Your task to perform on an android device: Add macbook pro to the cart on walmart Image 0: 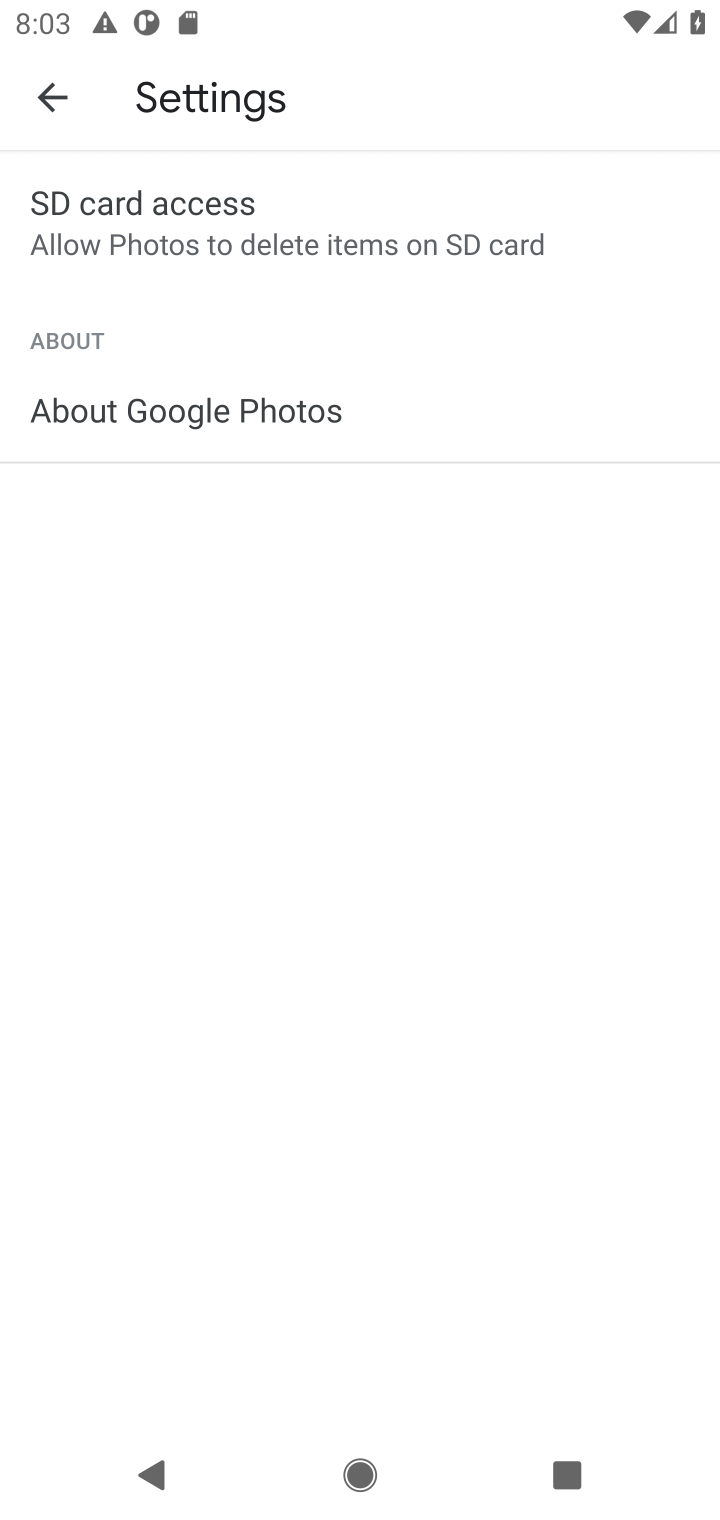
Step 0: press home button
Your task to perform on an android device: Add macbook pro to the cart on walmart Image 1: 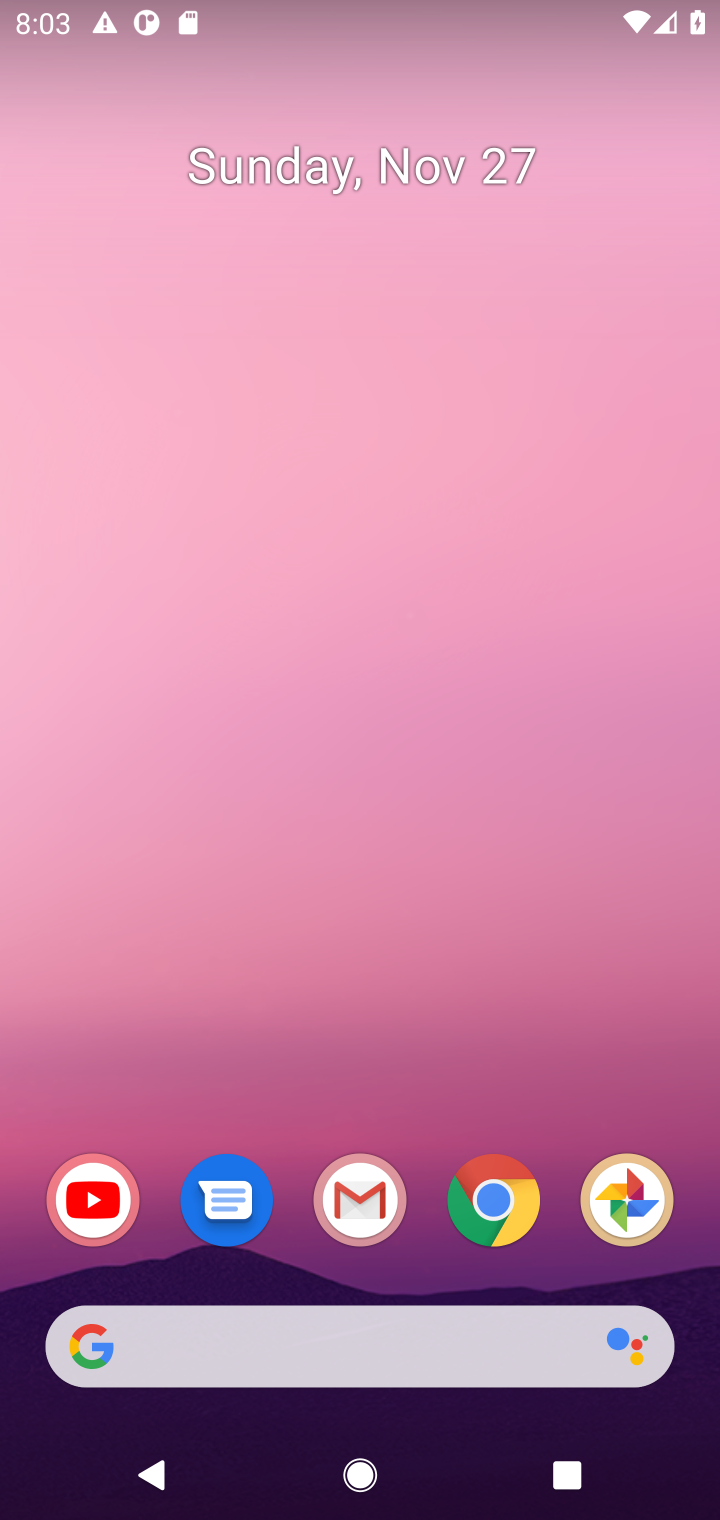
Step 1: click (507, 1228)
Your task to perform on an android device: Add macbook pro to the cart on walmart Image 2: 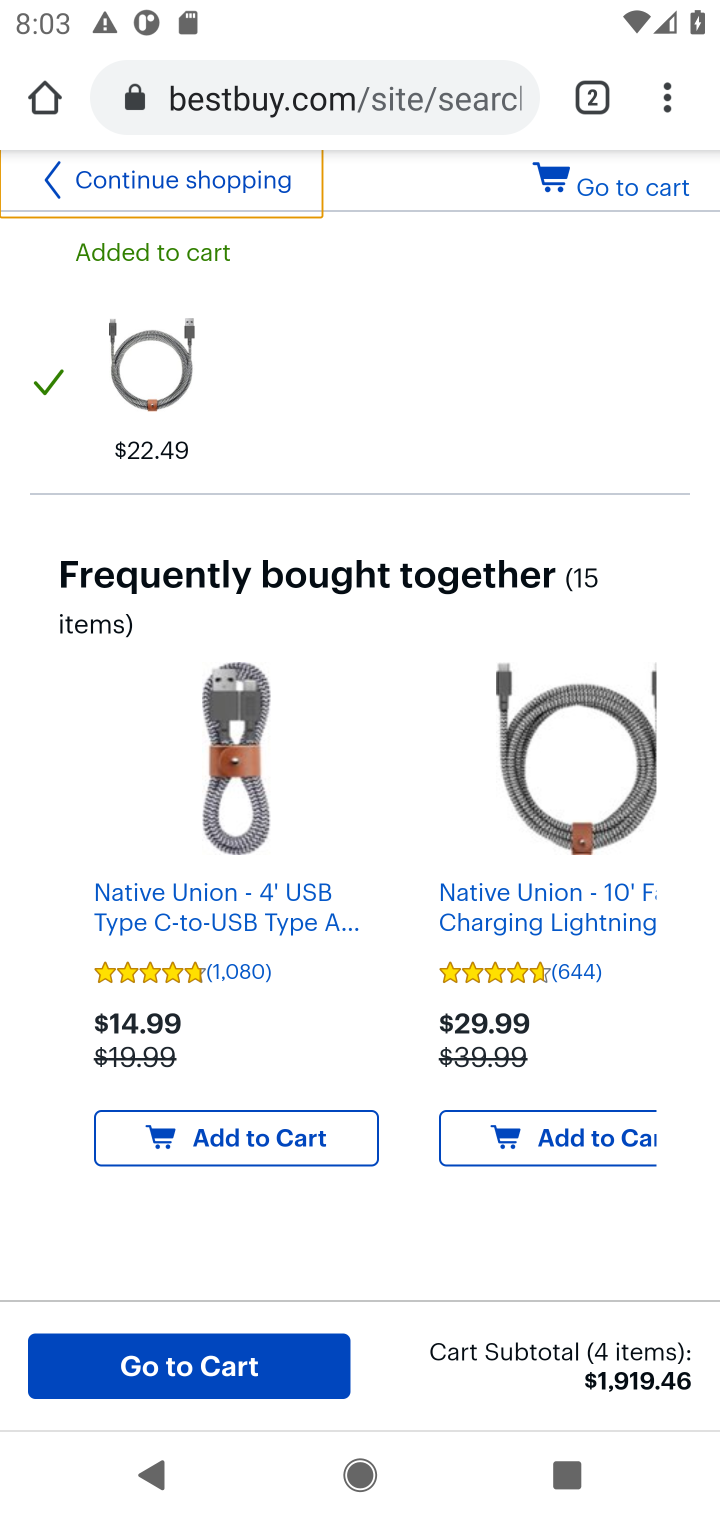
Step 2: click (324, 112)
Your task to perform on an android device: Add macbook pro to the cart on walmart Image 3: 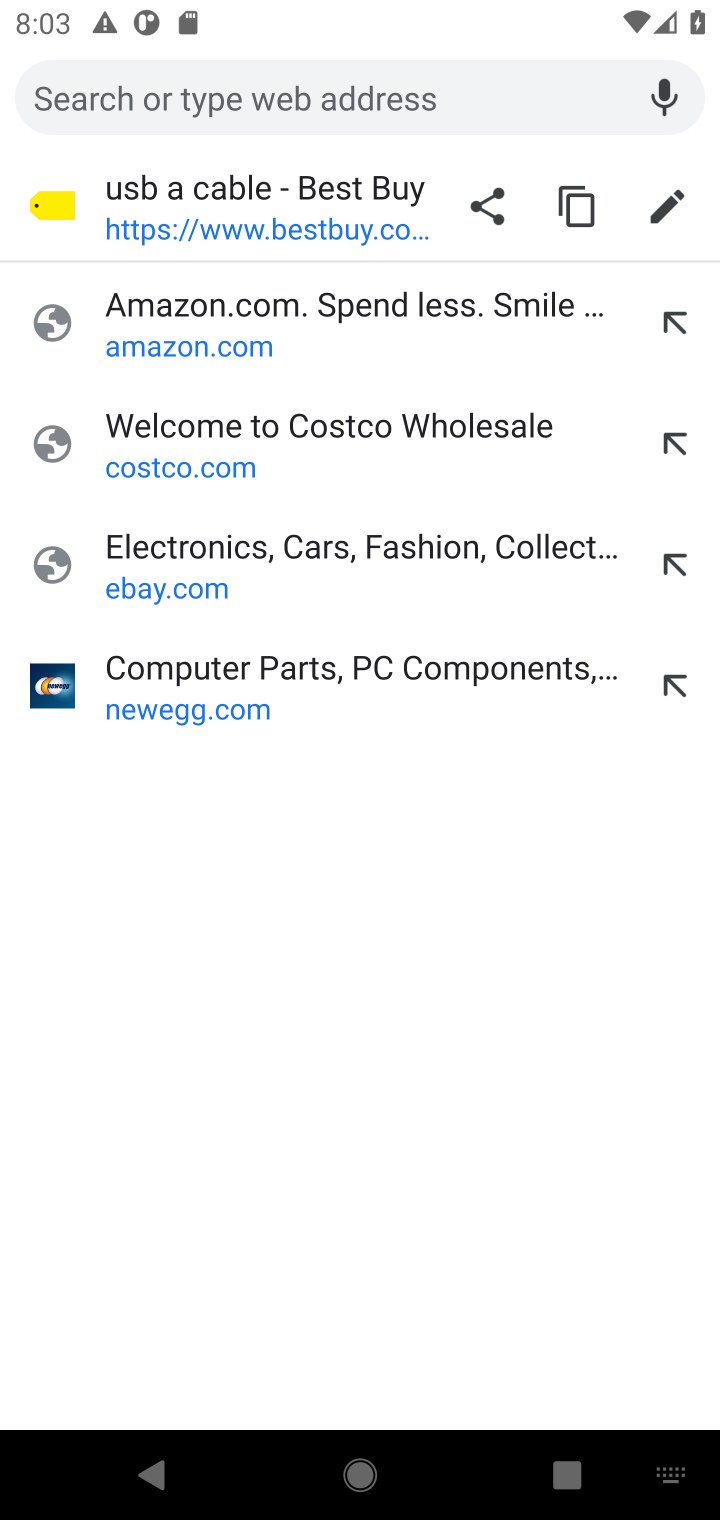
Step 3: type "walmart.com"
Your task to perform on an android device: Add macbook pro to the cart on walmart Image 4: 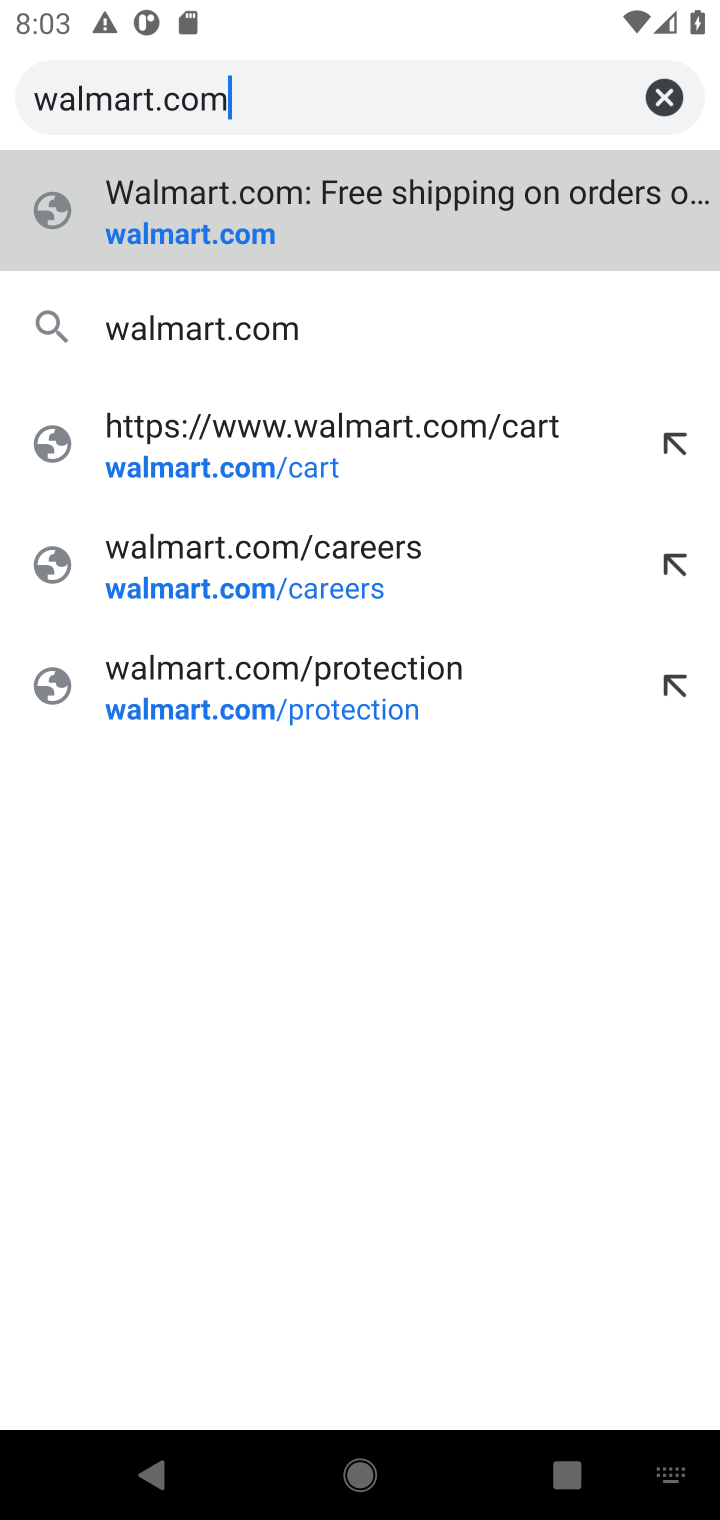
Step 4: click (162, 247)
Your task to perform on an android device: Add macbook pro to the cart on walmart Image 5: 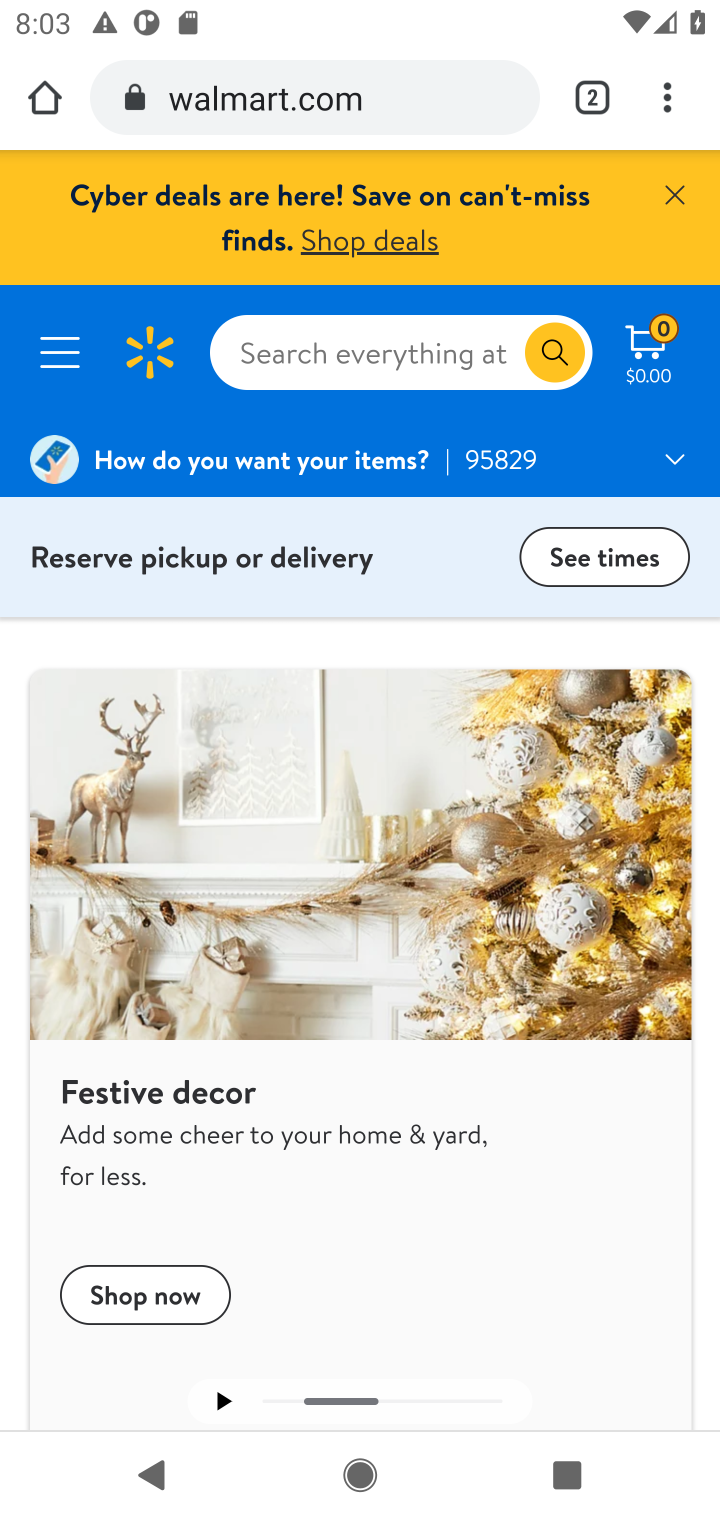
Step 5: click (259, 355)
Your task to perform on an android device: Add macbook pro to the cart on walmart Image 6: 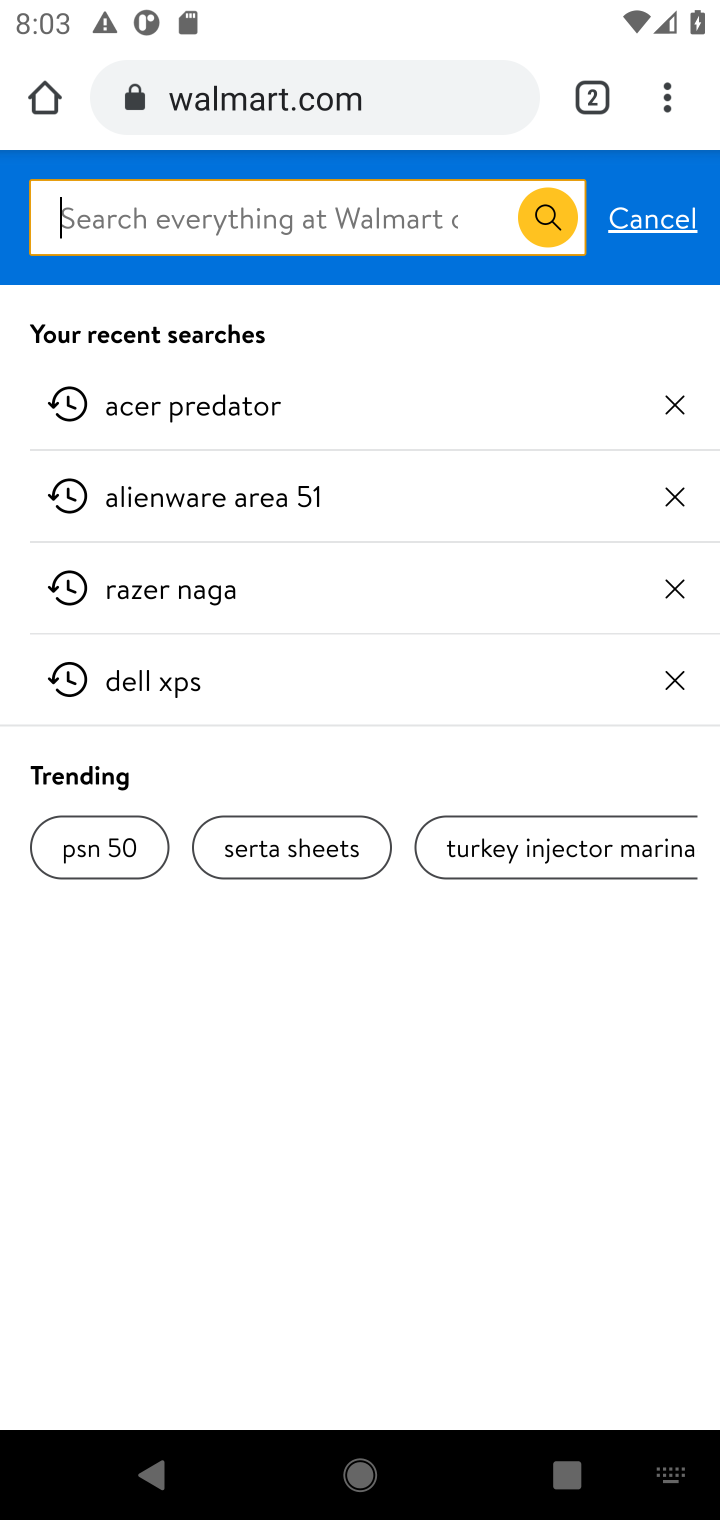
Step 6: type ""
Your task to perform on an android device: Add macbook pro to the cart on walmart Image 7: 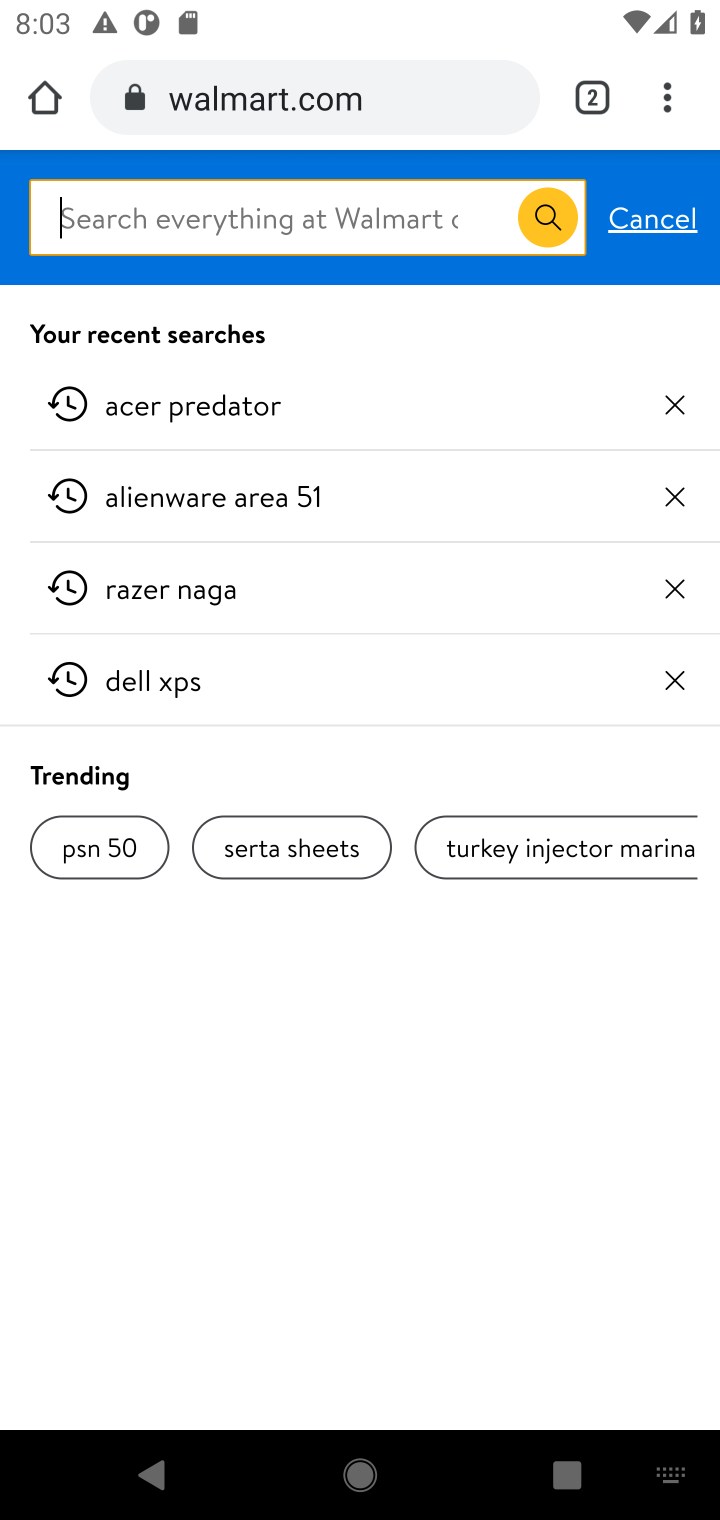
Step 7: type "macbook pro "
Your task to perform on an android device: Add macbook pro to the cart on walmart Image 8: 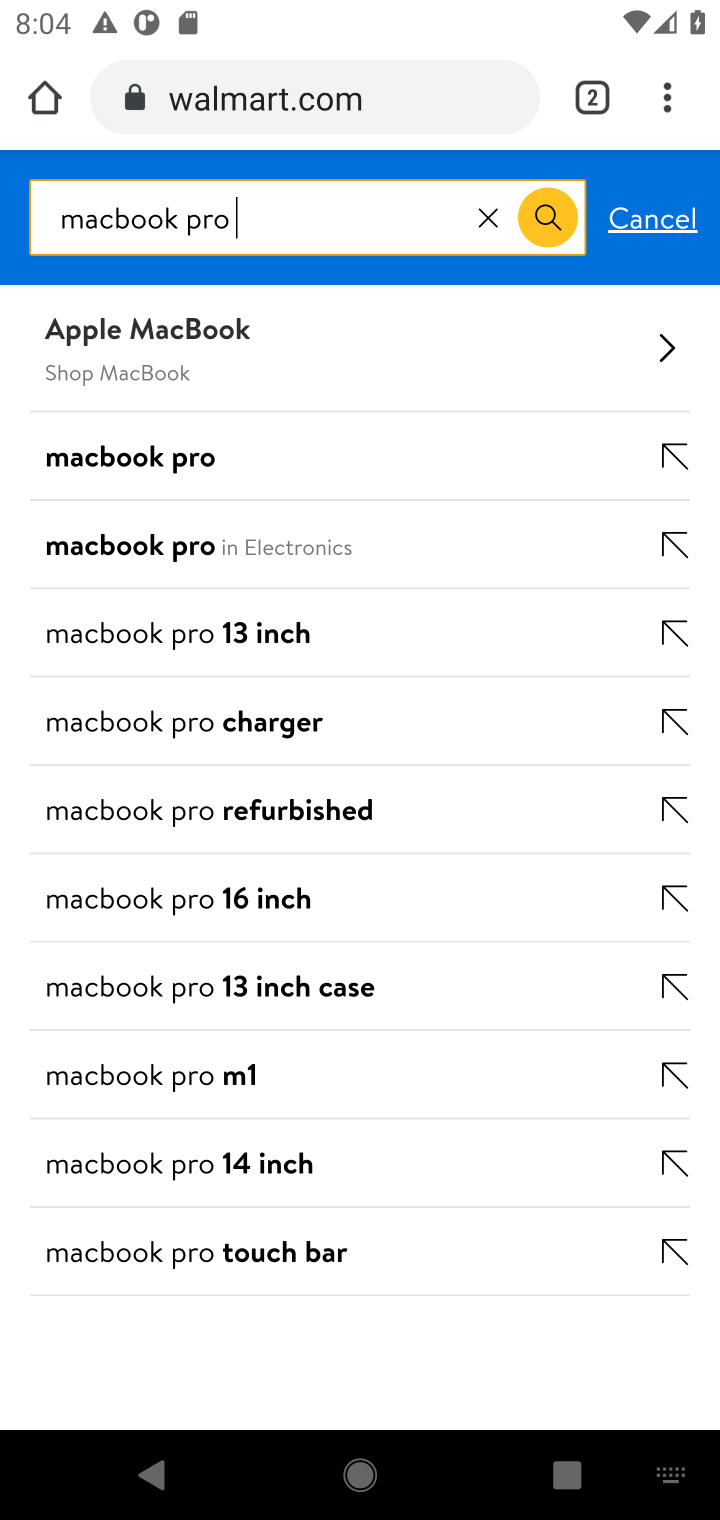
Step 8: click (132, 468)
Your task to perform on an android device: Add macbook pro to the cart on walmart Image 9: 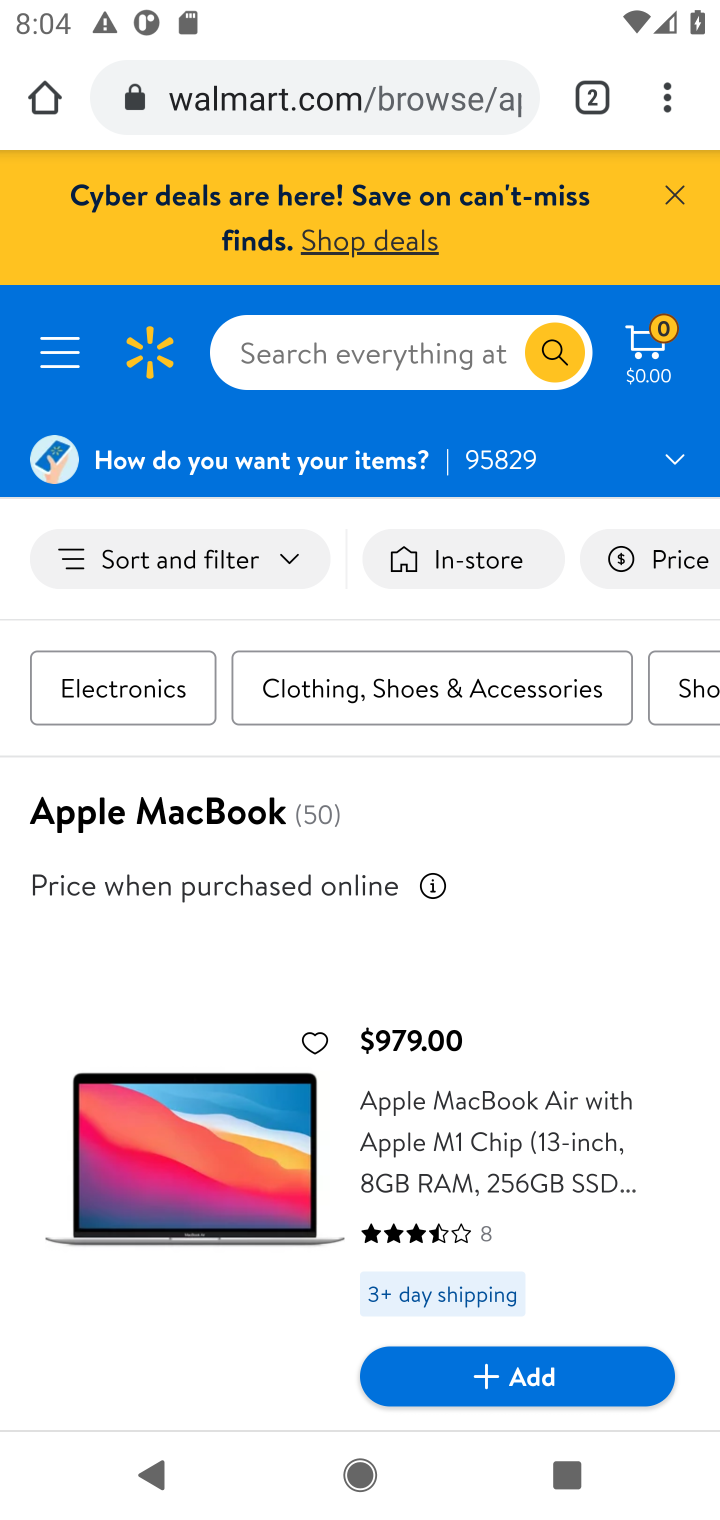
Step 9: drag from (357, 1155) to (334, 772)
Your task to perform on an android device: Add macbook pro to the cart on walmart Image 10: 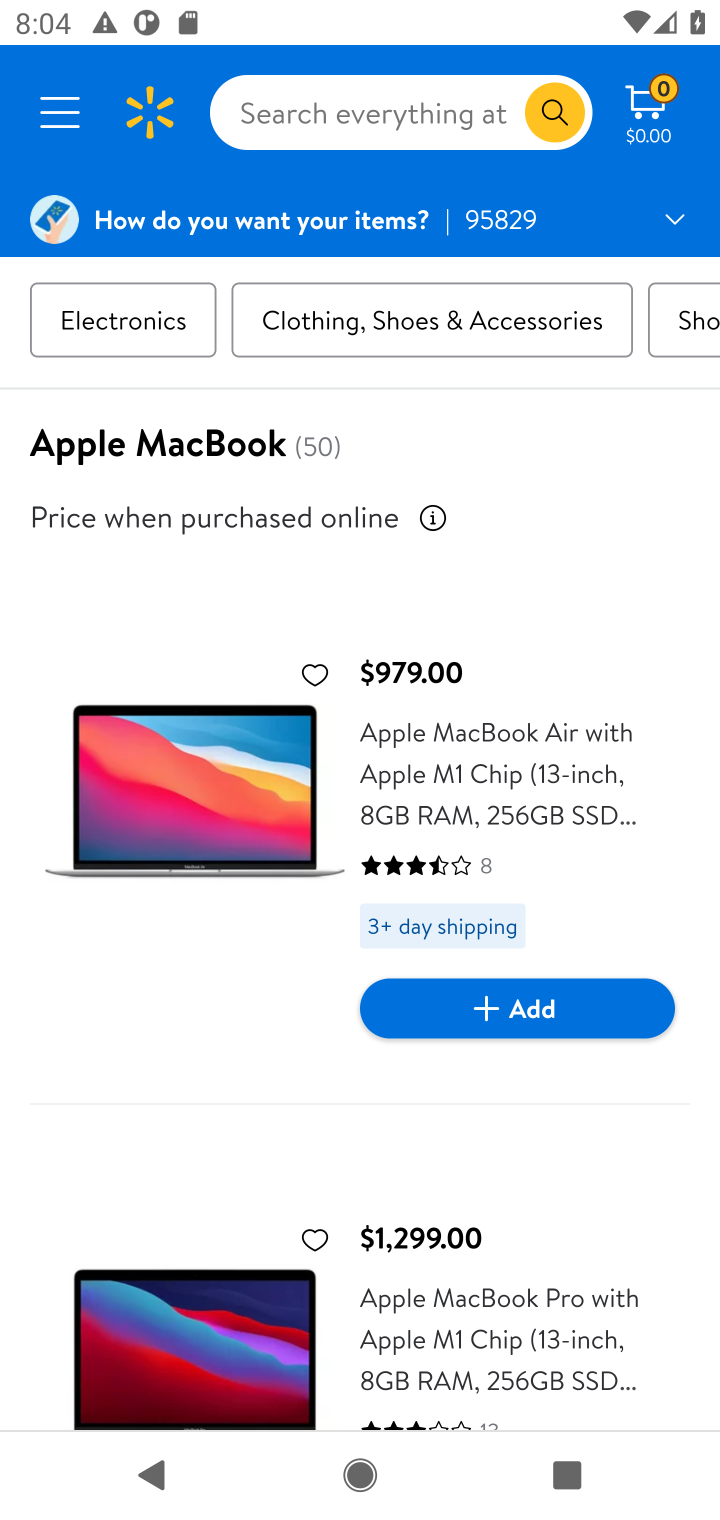
Step 10: drag from (275, 1264) to (281, 864)
Your task to perform on an android device: Add macbook pro to the cart on walmart Image 11: 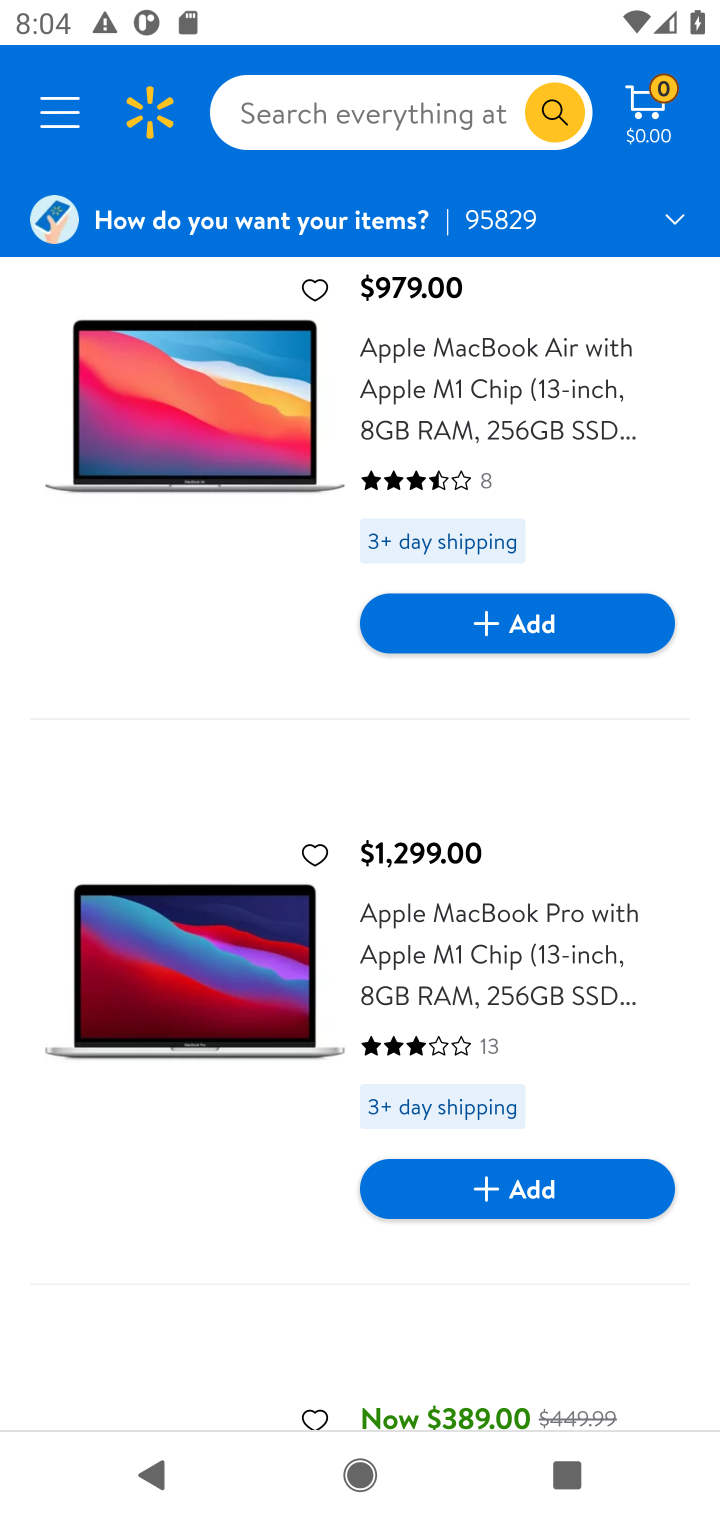
Step 11: click (504, 1210)
Your task to perform on an android device: Add macbook pro to the cart on walmart Image 12: 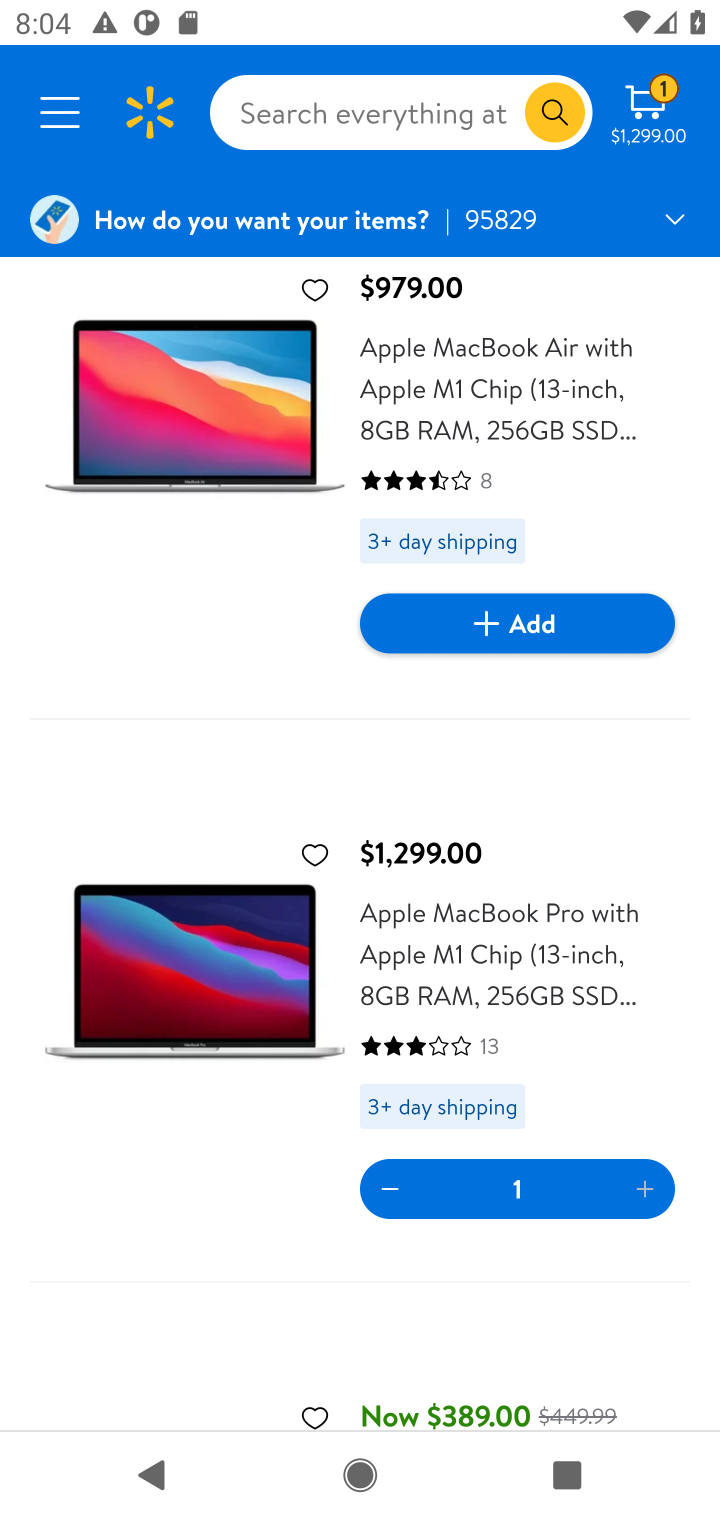
Step 12: task complete